Your task to perform on an android device: add a label to a message in the gmail app Image 0: 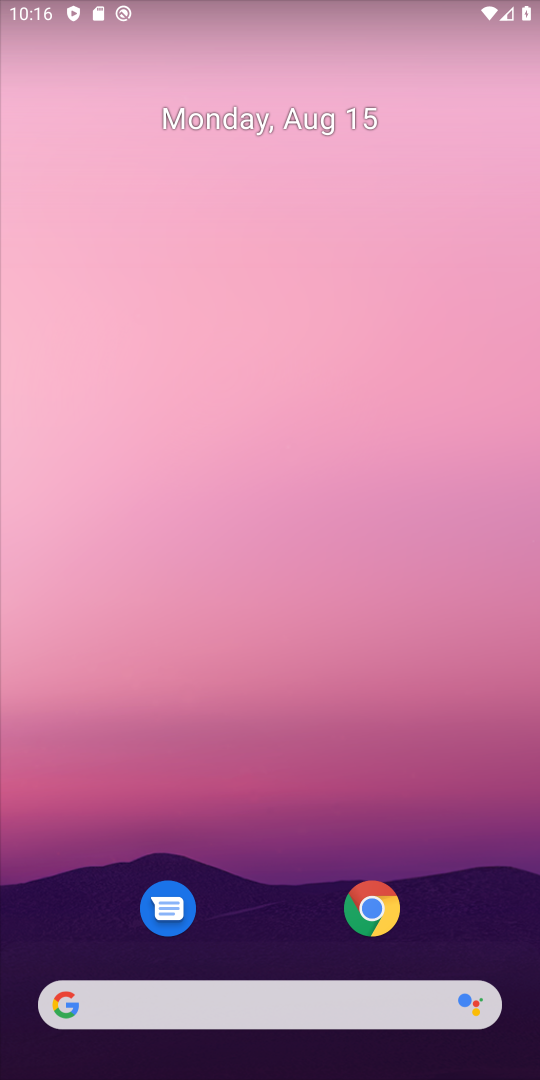
Step 0: drag from (229, 943) to (232, 74)
Your task to perform on an android device: add a label to a message in the gmail app Image 1: 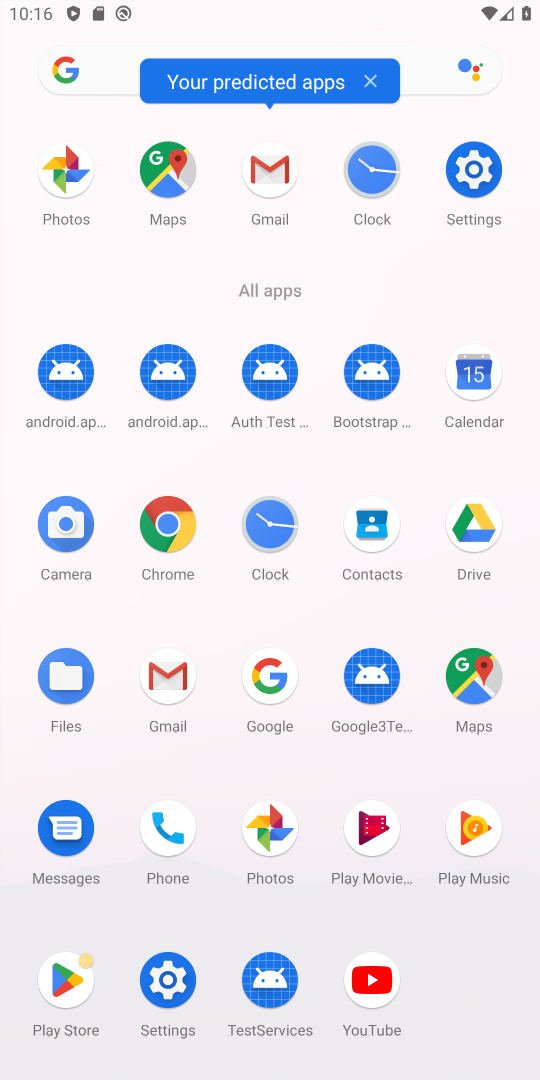
Step 1: click (278, 175)
Your task to perform on an android device: add a label to a message in the gmail app Image 2: 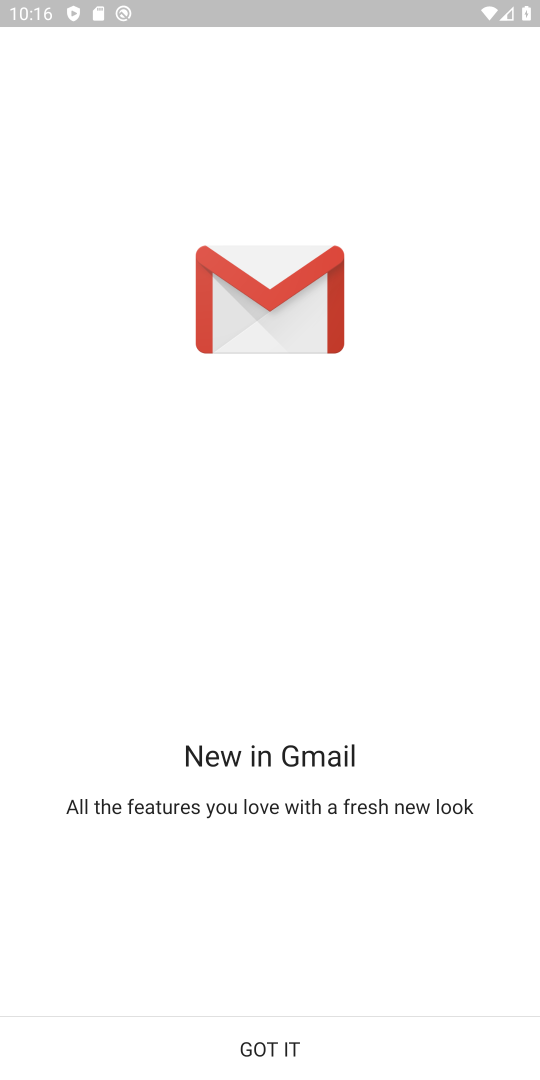
Step 2: click (224, 1061)
Your task to perform on an android device: add a label to a message in the gmail app Image 3: 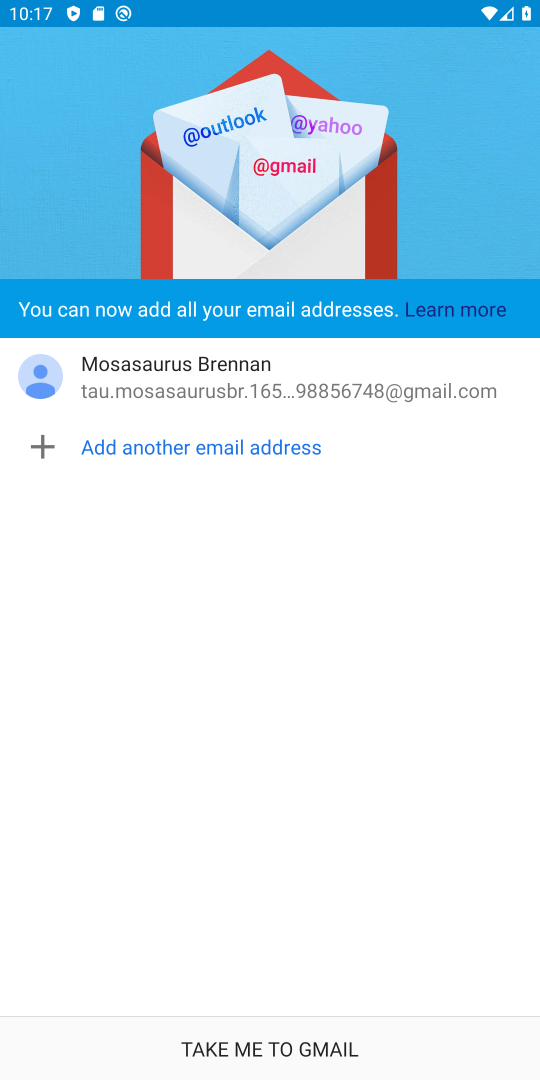
Step 3: click (224, 1061)
Your task to perform on an android device: add a label to a message in the gmail app Image 4: 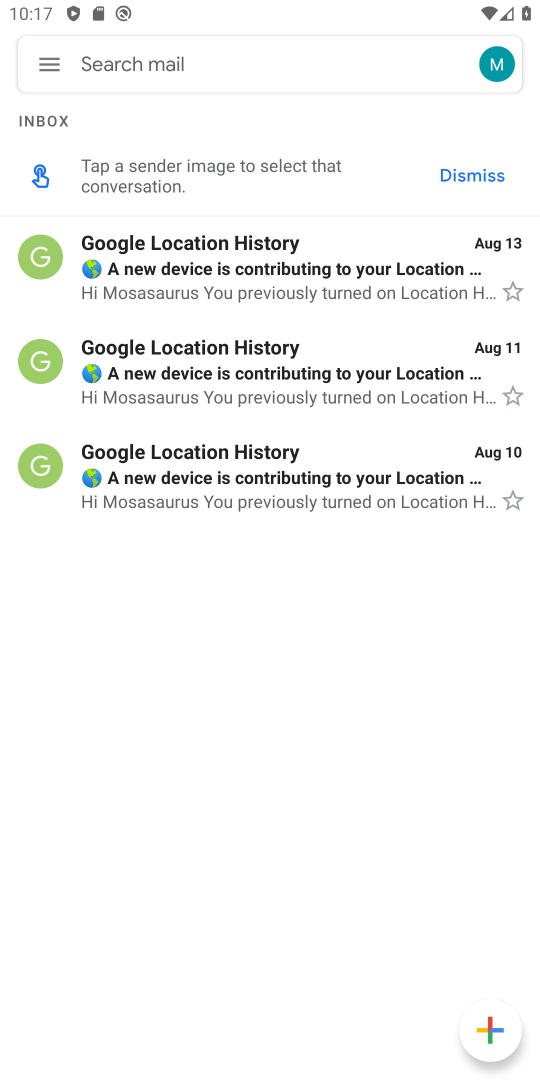
Step 4: click (56, 267)
Your task to perform on an android device: add a label to a message in the gmail app Image 5: 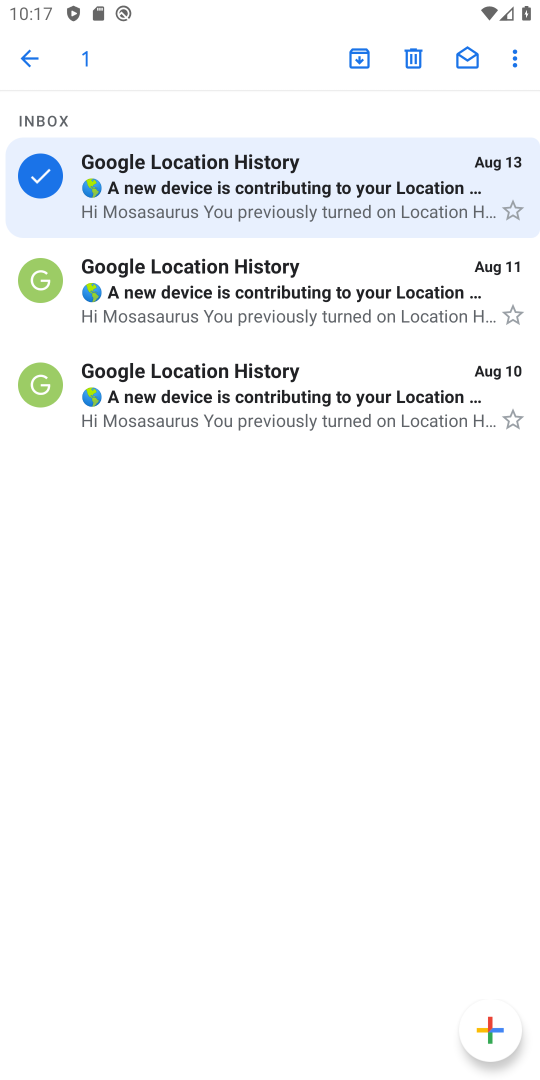
Step 5: click (522, 57)
Your task to perform on an android device: add a label to a message in the gmail app Image 6: 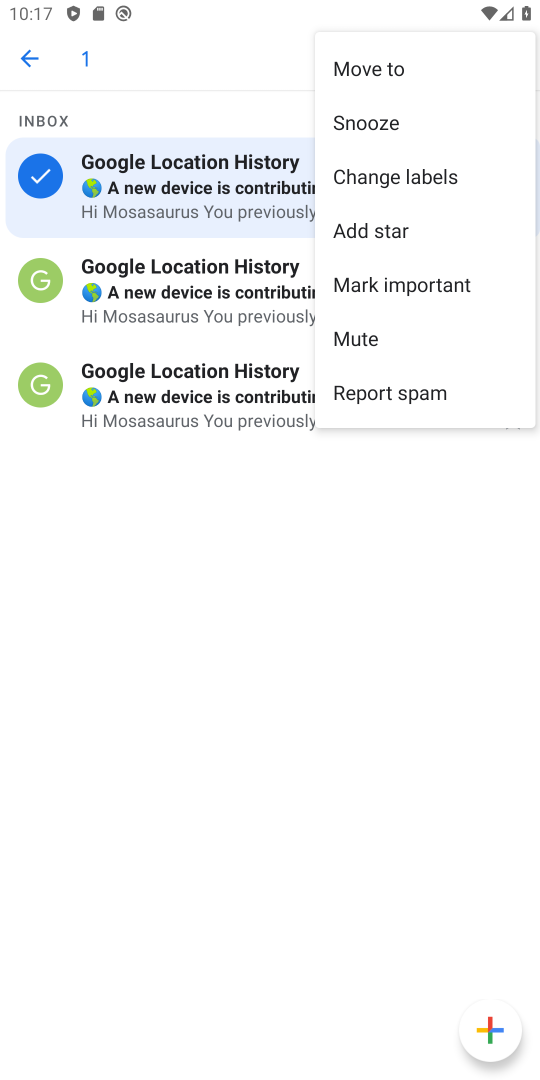
Step 6: click (426, 195)
Your task to perform on an android device: add a label to a message in the gmail app Image 7: 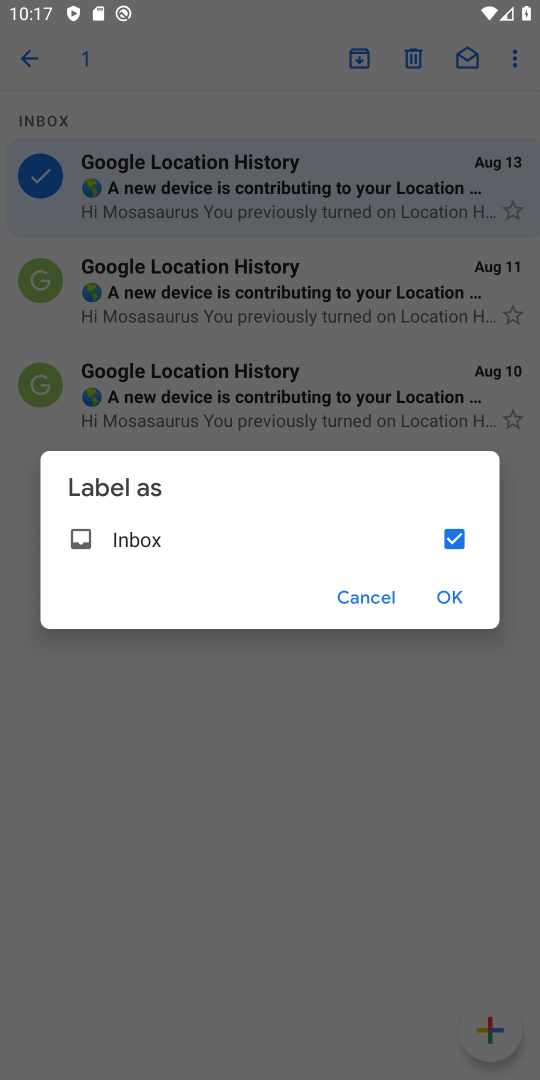
Step 7: click (451, 595)
Your task to perform on an android device: add a label to a message in the gmail app Image 8: 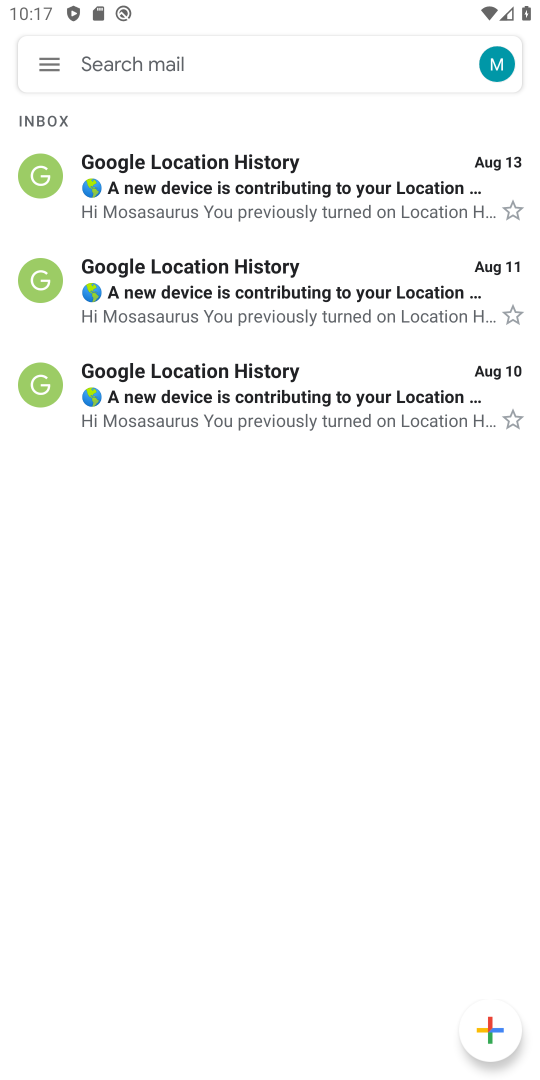
Step 8: task complete